Your task to perform on an android device: toggle translation in the chrome app Image 0: 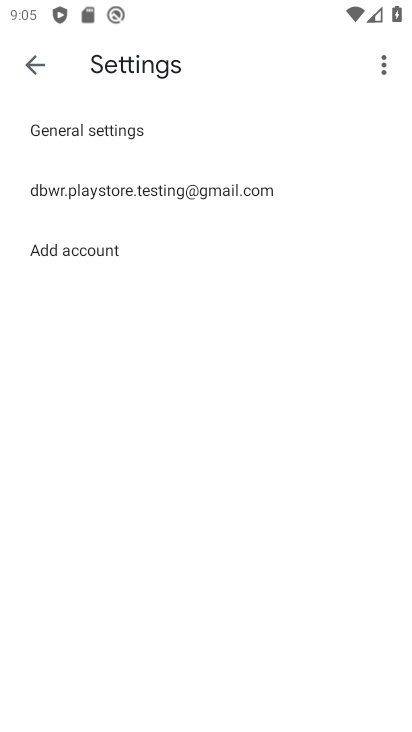
Step 0: press back button
Your task to perform on an android device: toggle translation in the chrome app Image 1: 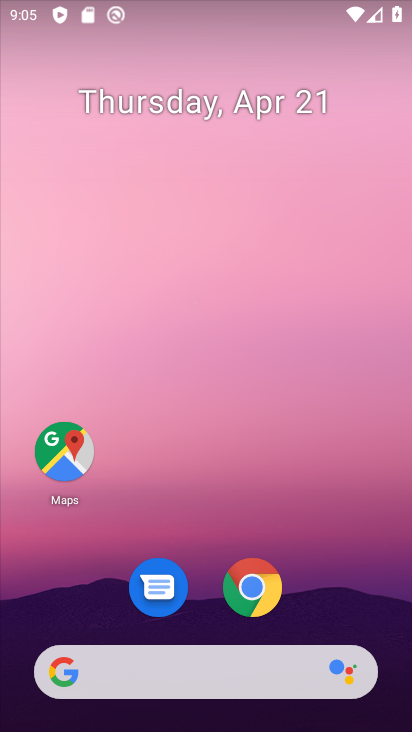
Step 1: drag from (155, 601) to (312, 34)
Your task to perform on an android device: toggle translation in the chrome app Image 2: 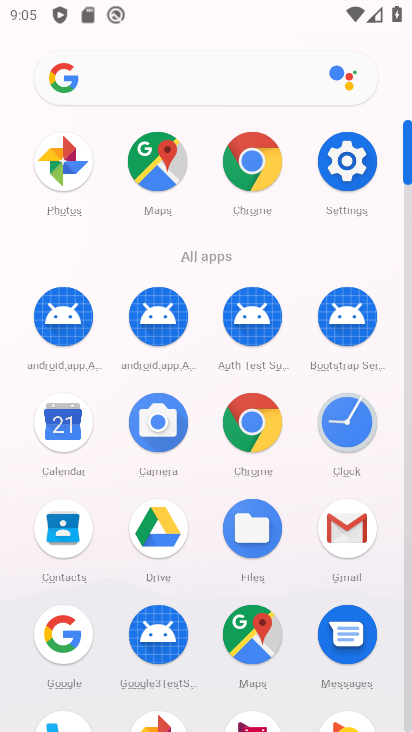
Step 2: click (345, 166)
Your task to perform on an android device: toggle translation in the chrome app Image 3: 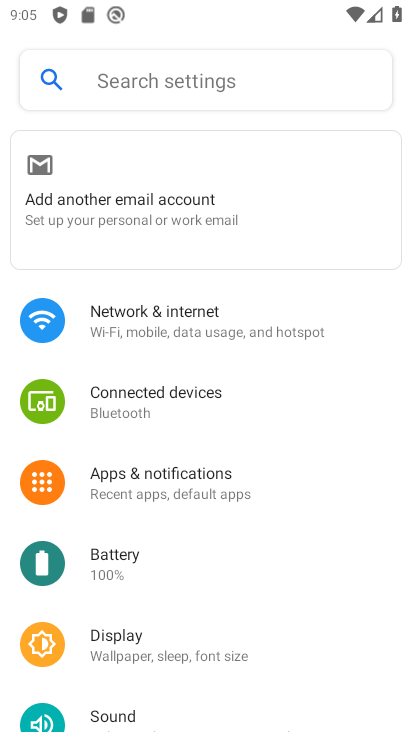
Step 3: drag from (179, 680) to (319, 111)
Your task to perform on an android device: toggle translation in the chrome app Image 4: 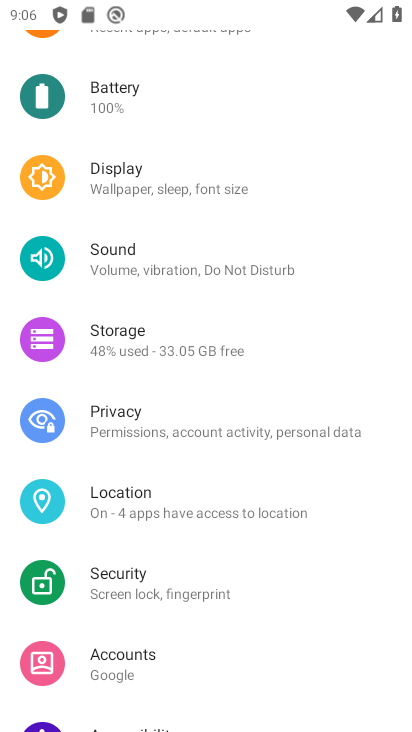
Step 4: press back button
Your task to perform on an android device: toggle translation in the chrome app Image 5: 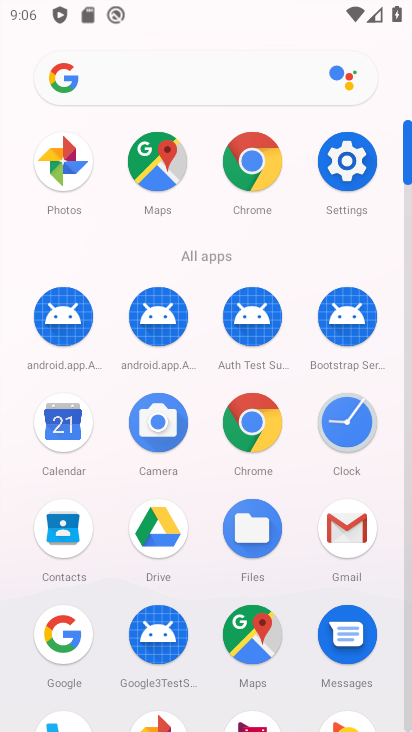
Step 5: click (261, 420)
Your task to perform on an android device: toggle translation in the chrome app Image 6: 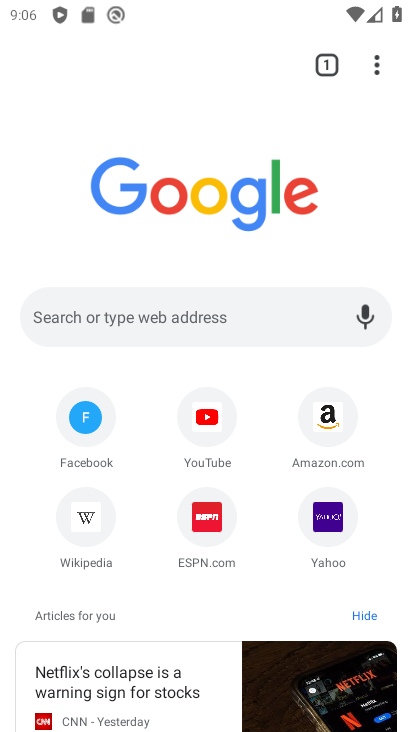
Step 6: click (379, 61)
Your task to perform on an android device: toggle translation in the chrome app Image 7: 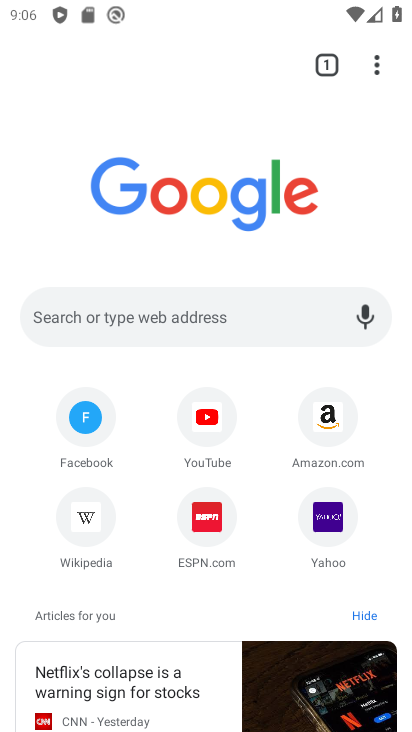
Step 7: drag from (370, 58) to (189, 533)
Your task to perform on an android device: toggle translation in the chrome app Image 8: 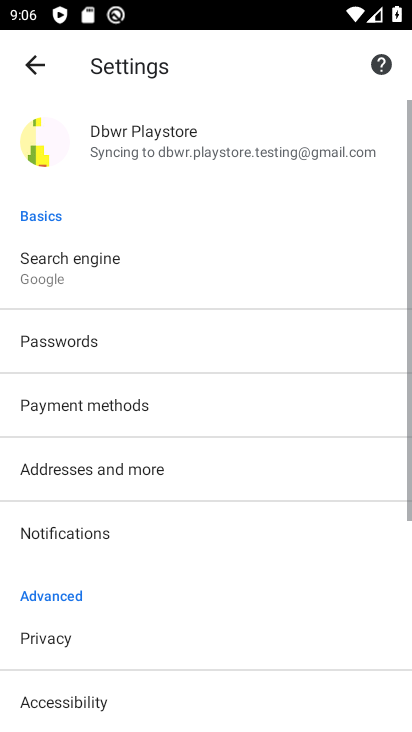
Step 8: drag from (172, 614) to (296, 129)
Your task to perform on an android device: toggle translation in the chrome app Image 9: 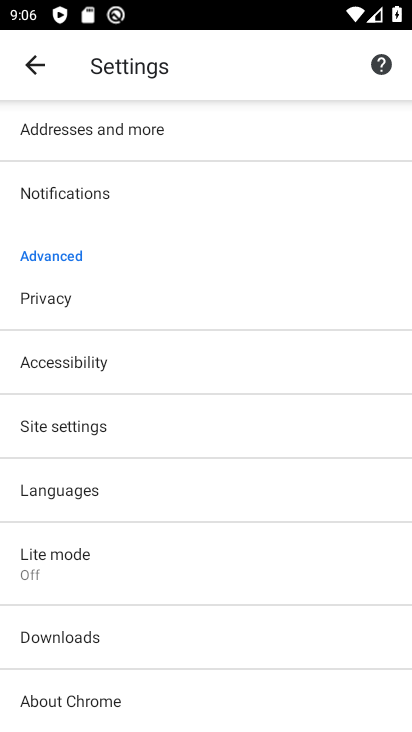
Step 9: click (121, 490)
Your task to perform on an android device: toggle translation in the chrome app Image 10: 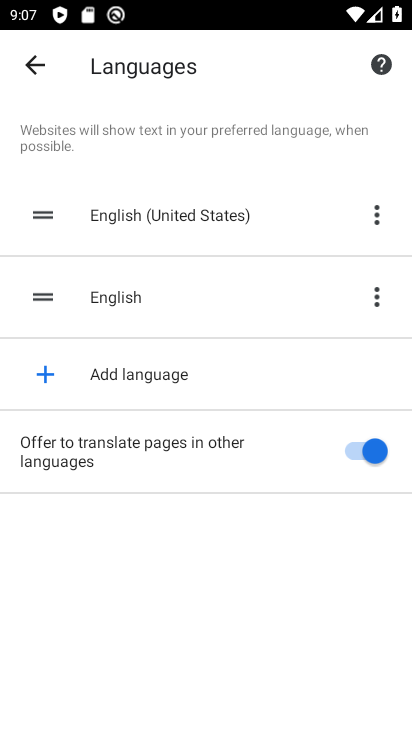
Step 10: click (365, 447)
Your task to perform on an android device: toggle translation in the chrome app Image 11: 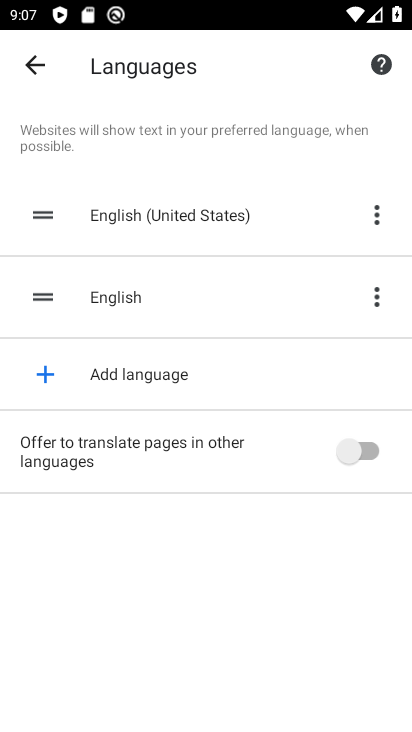
Step 11: task complete